Your task to perform on an android device: What is the recent news? Image 0: 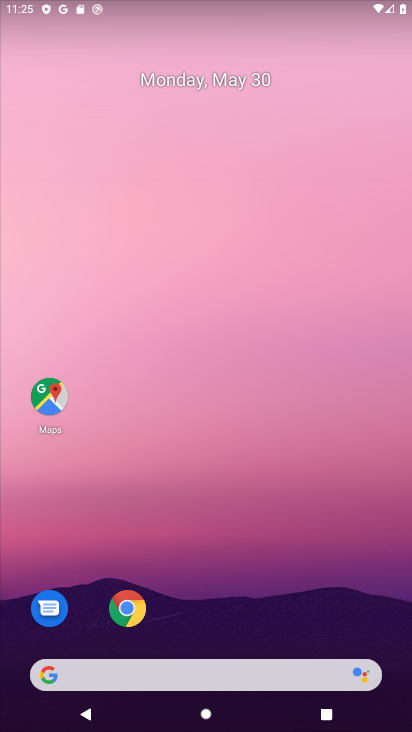
Step 0: drag from (233, 616) to (274, 76)
Your task to perform on an android device: What is the recent news? Image 1: 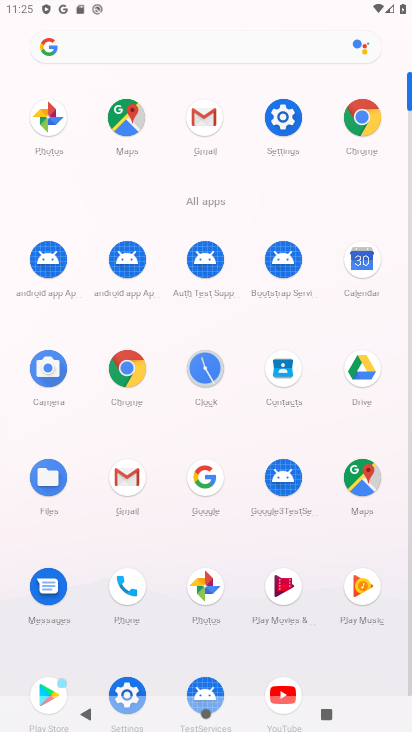
Step 1: click (205, 482)
Your task to perform on an android device: What is the recent news? Image 2: 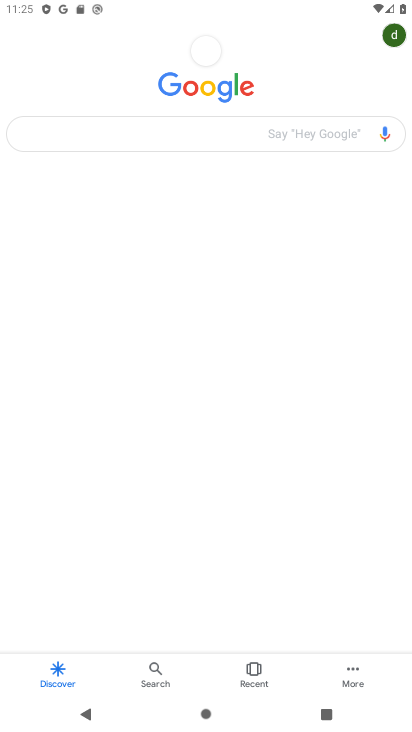
Step 2: click (100, 124)
Your task to perform on an android device: What is the recent news? Image 3: 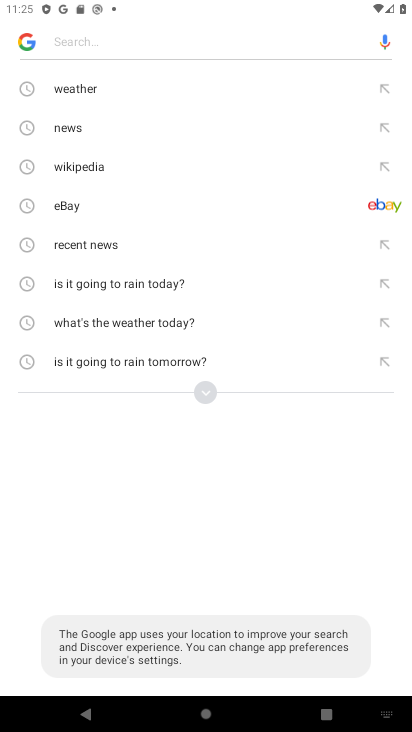
Step 3: click (205, 398)
Your task to perform on an android device: What is the recent news? Image 4: 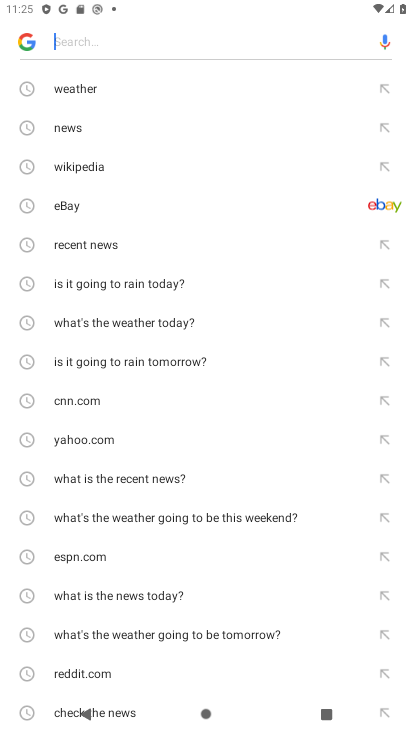
Step 4: drag from (133, 636) to (166, 417)
Your task to perform on an android device: What is the recent news? Image 5: 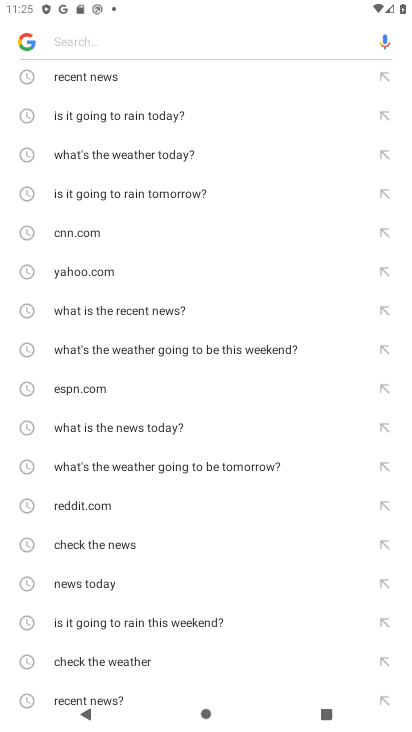
Step 5: click (104, 699)
Your task to perform on an android device: What is the recent news? Image 6: 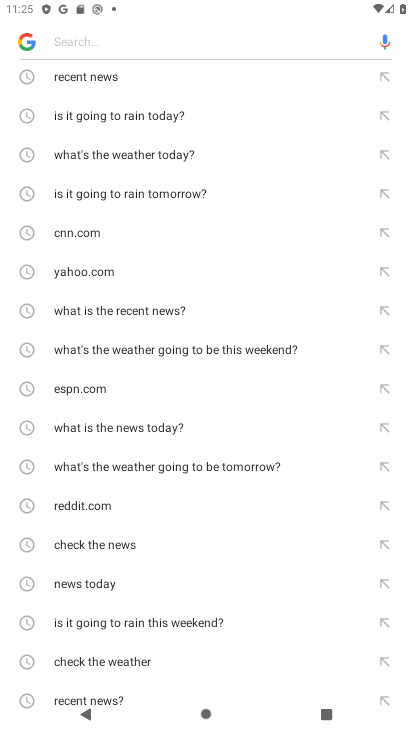
Step 6: drag from (154, 644) to (212, 402)
Your task to perform on an android device: What is the recent news? Image 7: 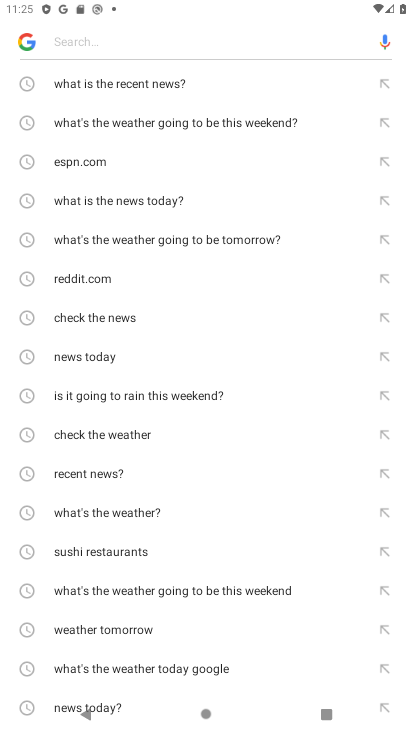
Step 7: click (111, 471)
Your task to perform on an android device: What is the recent news? Image 8: 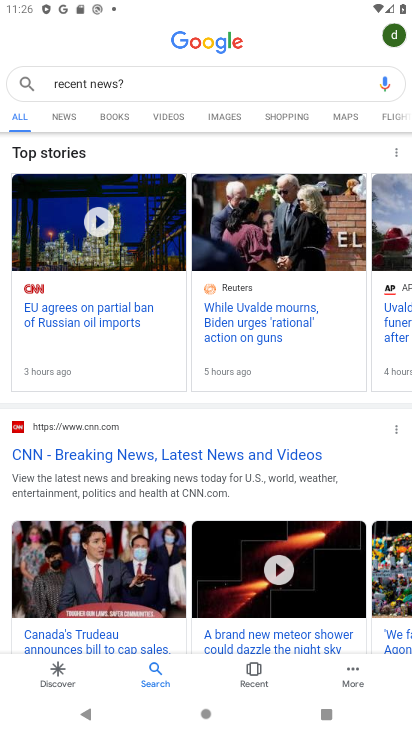
Step 8: task complete